Your task to perform on an android device: search for starred emails in the gmail app Image 0: 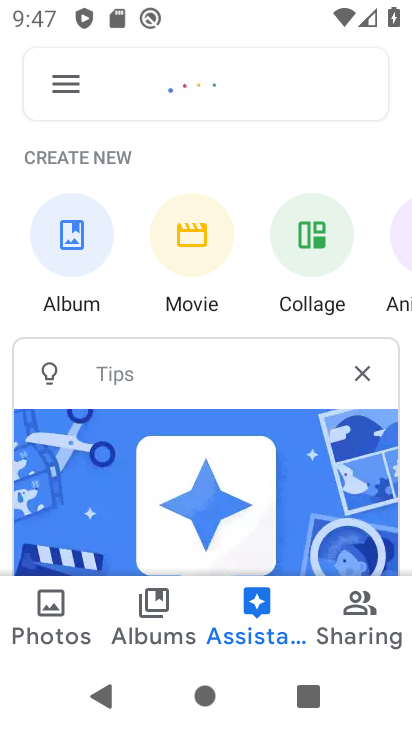
Step 0: press back button
Your task to perform on an android device: search for starred emails in the gmail app Image 1: 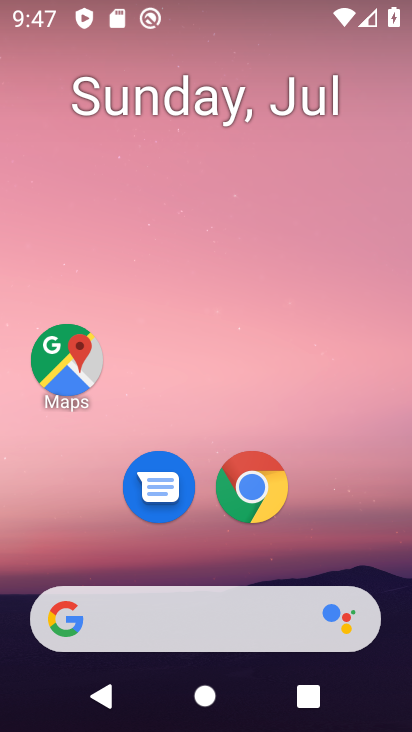
Step 1: drag from (202, 563) to (222, 5)
Your task to perform on an android device: search for starred emails in the gmail app Image 2: 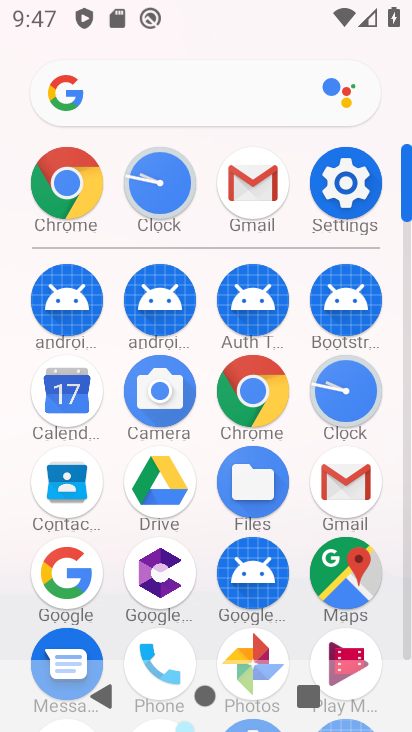
Step 2: click (250, 173)
Your task to perform on an android device: search for starred emails in the gmail app Image 3: 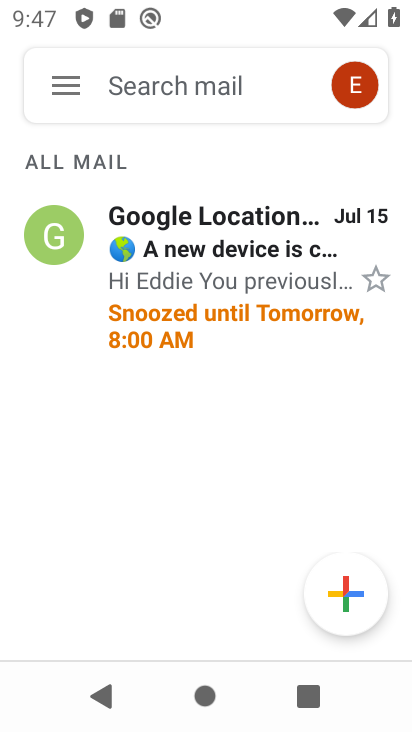
Step 3: click (67, 74)
Your task to perform on an android device: search for starred emails in the gmail app Image 4: 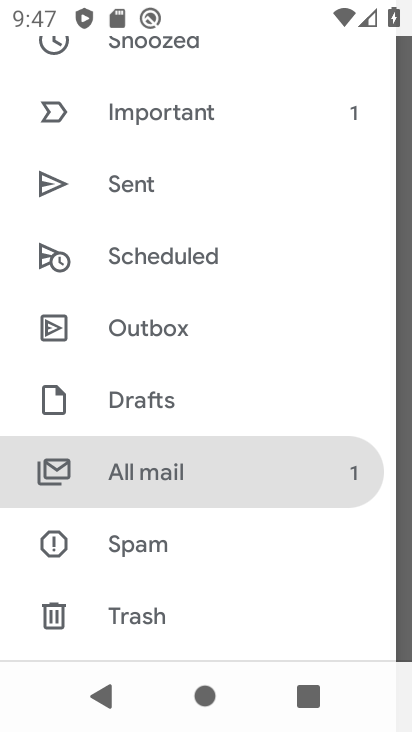
Step 4: drag from (151, 119) to (202, 580)
Your task to perform on an android device: search for starred emails in the gmail app Image 5: 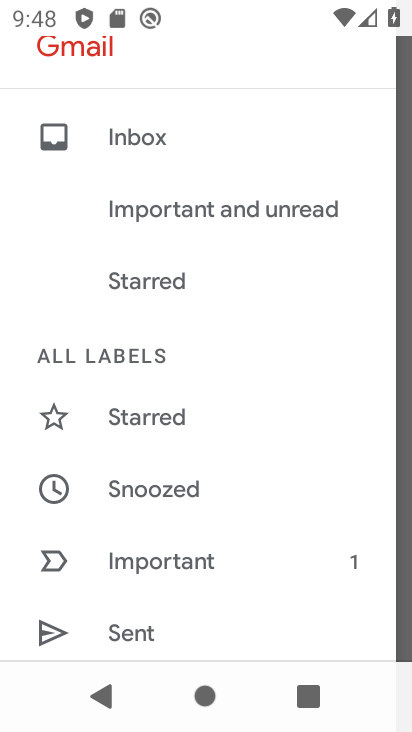
Step 5: click (121, 426)
Your task to perform on an android device: search for starred emails in the gmail app Image 6: 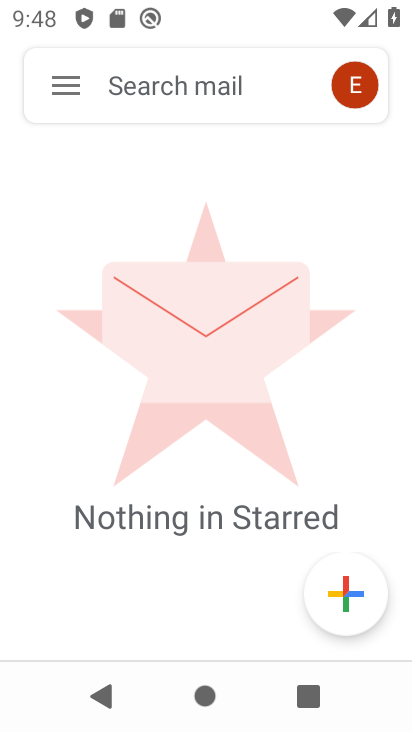
Step 6: task complete